Your task to perform on an android device: find photos in the google photos app Image 0: 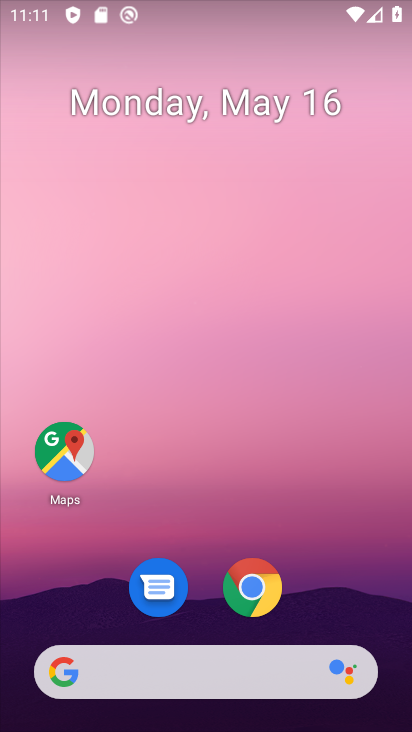
Step 0: drag from (385, 668) to (306, 120)
Your task to perform on an android device: find photos in the google photos app Image 1: 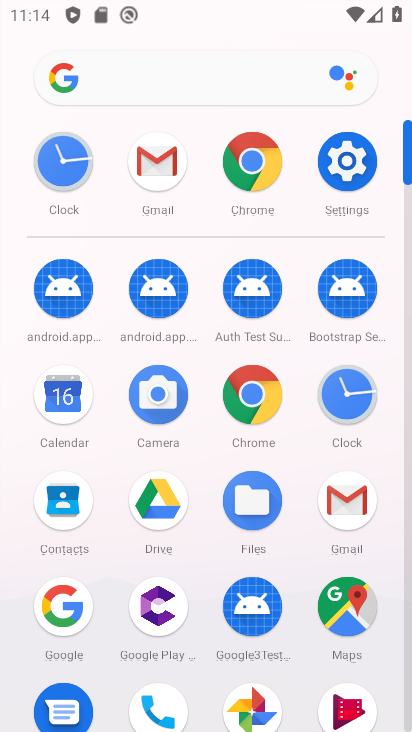
Step 1: click (250, 692)
Your task to perform on an android device: find photos in the google photos app Image 2: 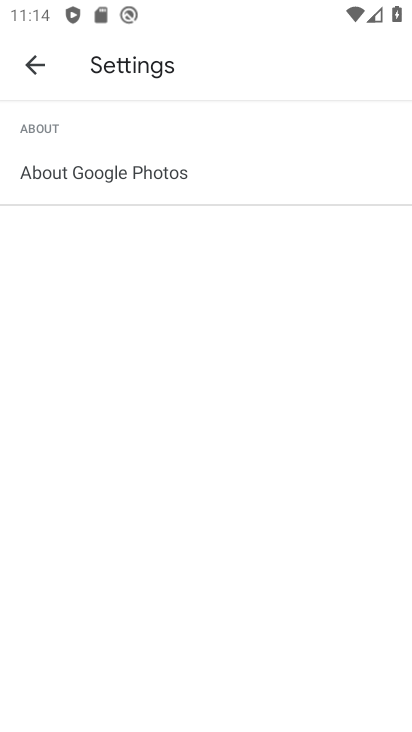
Step 2: task complete